Your task to perform on an android device: turn off wifi Image 0: 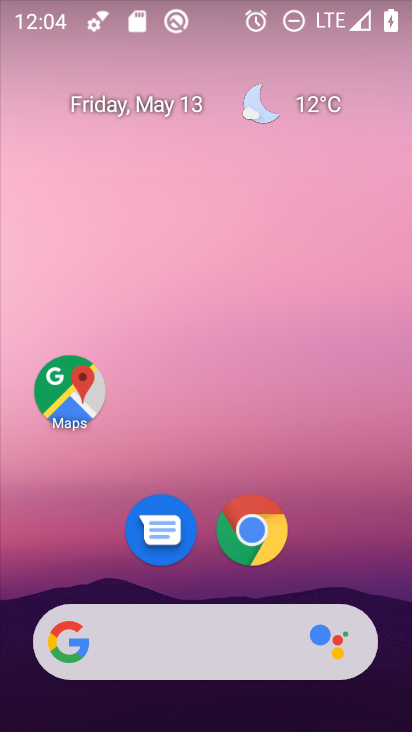
Step 0: press home button
Your task to perform on an android device: turn off wifi Image 1: 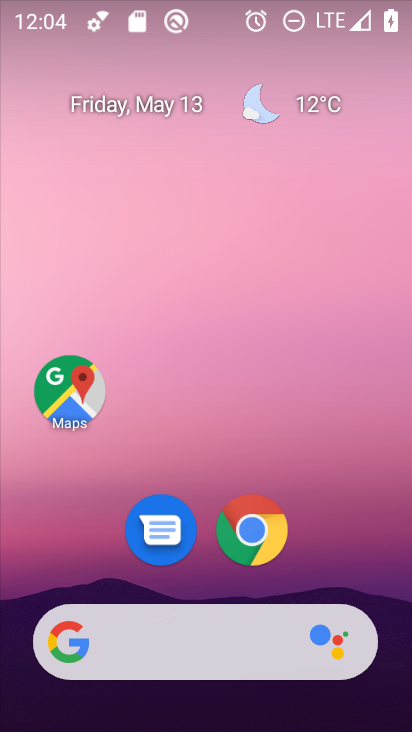
Step 1: drag from (200, 624) to (338, 0)
Your task to perform on an android device: turn off wifi Image 2: 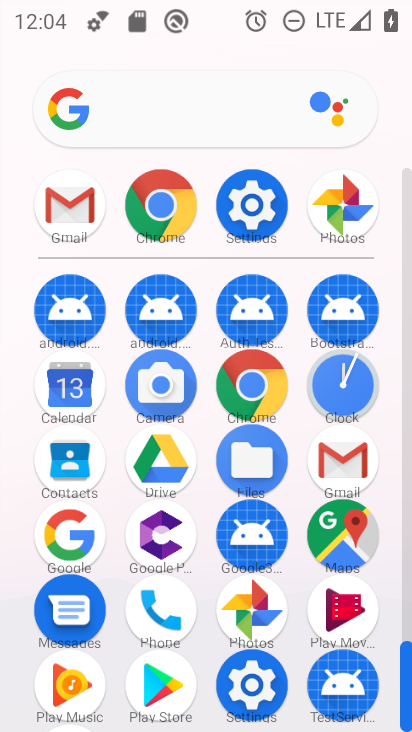
Step 2: click (257, 200)
Your task to perform on an android device: turn off wifi Image 3: 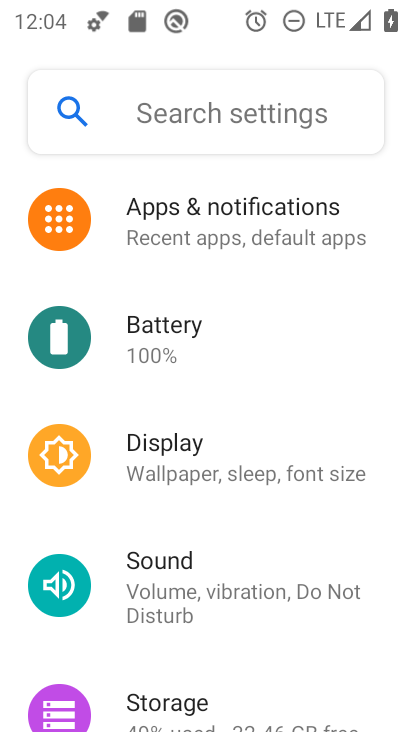
Step 3: drag from (283, 287) to (208, 567)
Your task to perform on an android device: turn off wifi Image 4: 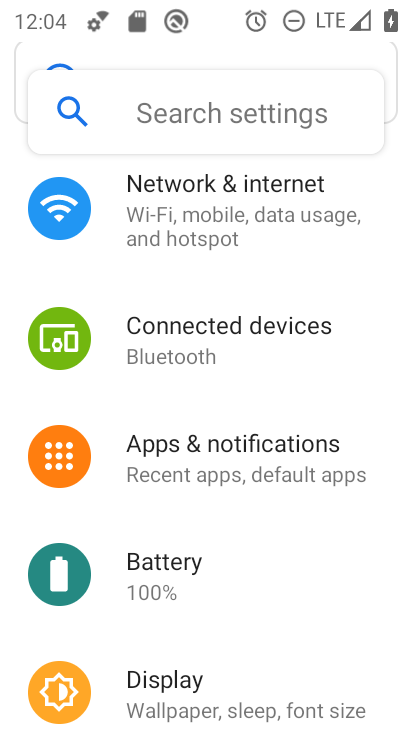
Step 4: click (278, 193)
Your task to perform on an android device: turn off wifi Image 5: 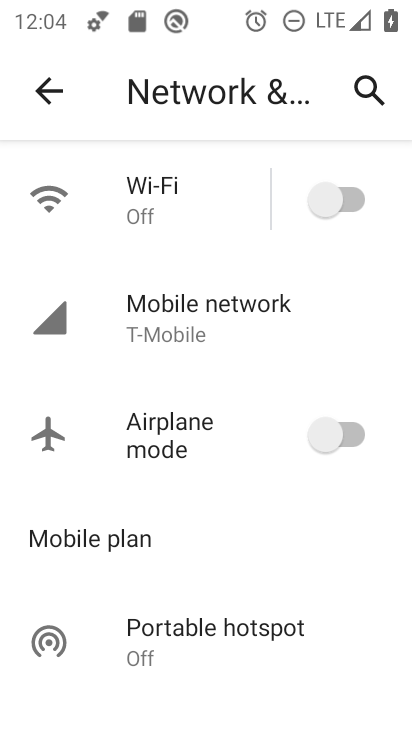
Step 5: task complete